Your task to perform on an android device: turn on showing notifications on the lock screen Image 0: 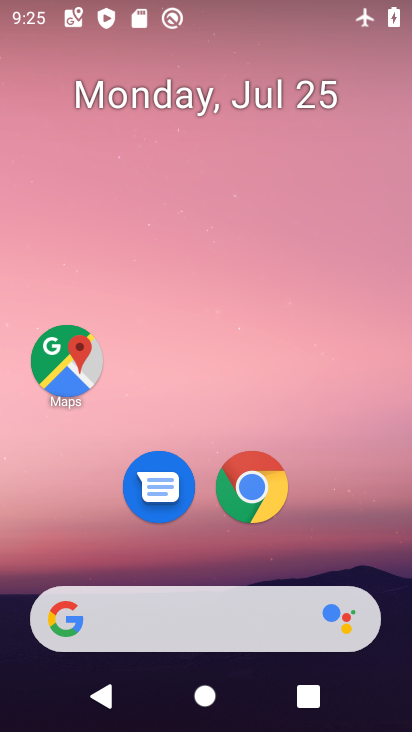
Step 0: drag from (250, 569) to (306, 19)
Your task to perform on an android device: turn on showing notifications on the lock screen Image 1: 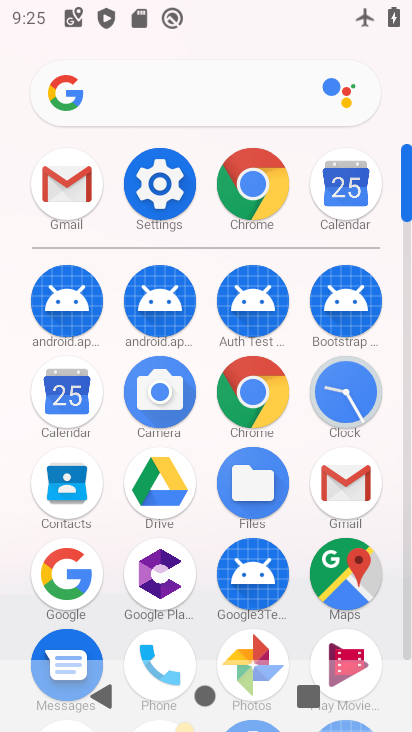
Step 1: click (156, 169)
Your task to perform on an android device: turn on showing notifications on the lock screen Image 2: 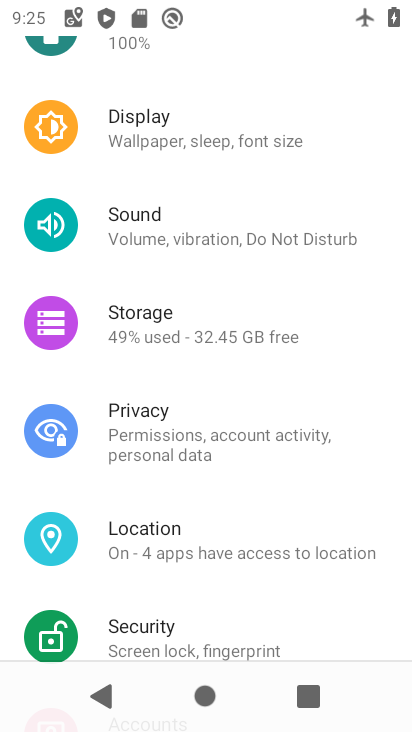
Step 2: drag from (229, 128) to (226, 712)
Your task to perform on an android device: turn on showing notifications on the lock screen Image 3: 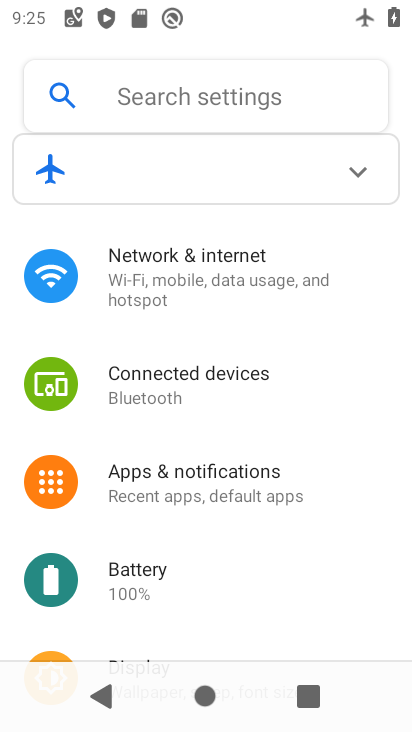
Step 3: click (206, 493)
Your task to perform on an android device: turn on showing notifications on the lock screen Image 4: 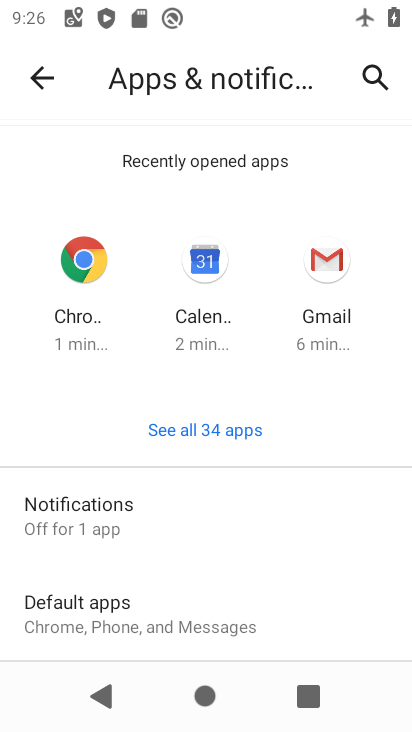
Step 4: drag from (256, 618) to (335, 45)
Your task to perform on an android device: turn on showing notifications on the lock screen Image 5: 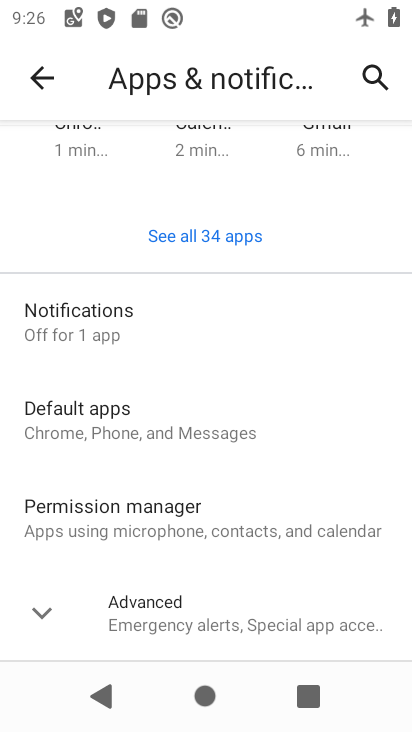
Step 5: click (217, 621)
Your task to perform on an android device: turn on showing notifications on the lock screen Image 6: 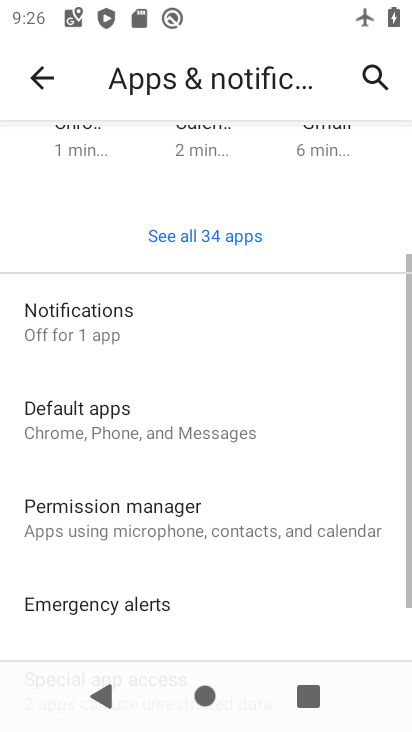
Step 6: drag from (246, 568) to (312, 39)
Your task to perform on an android device: turn on showing notifications on the lock screen Image 7: 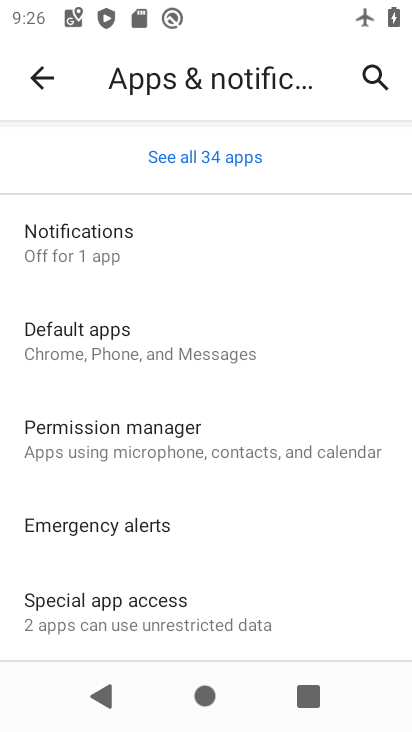
Step 7: click (166, 245)
Your task to perform on an android device: turn on showing notifications on the lock screen Image 8: 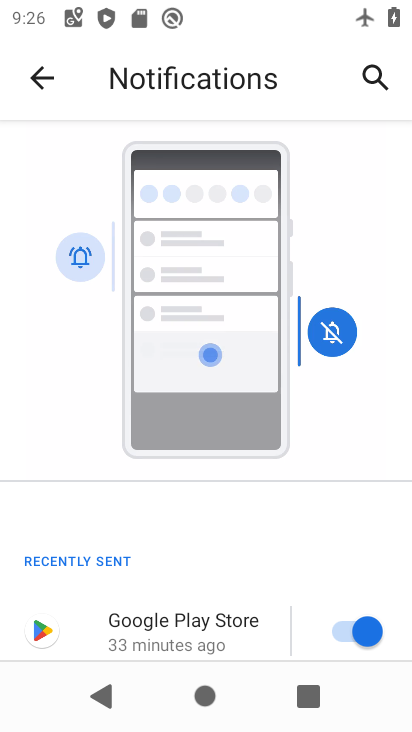
Step 8: drag from (146, 647) to (243, 87)
Your task to perform on an android device: turn on showing notifications on the lock screen Image 9: 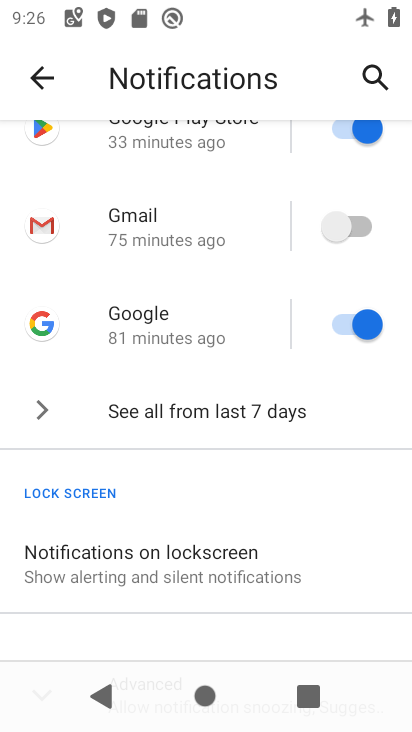
Step 9: click (176, 562)
Your task to perform on an android device: turn on showing notifications on the lock screen Image 10: 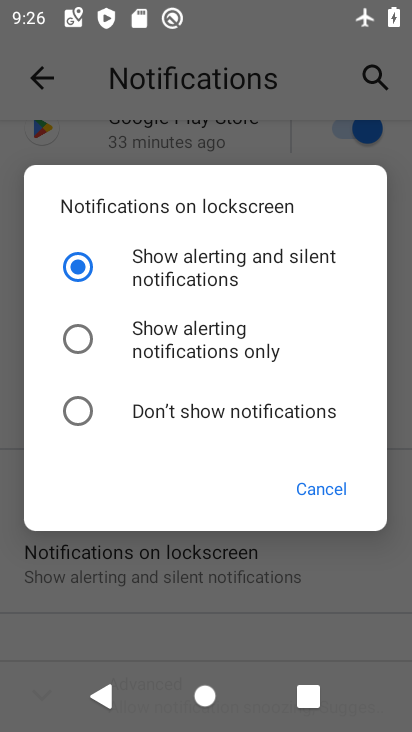
Step 10: click (90, 276)
Your task to perform on an android device: turn on showing notifications on the lock screen Image 11: 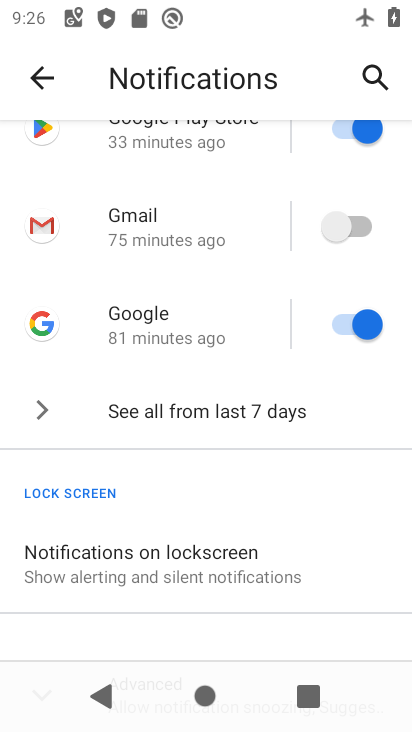
Step 11: task complete